Your task to perform on an android device: Go to eBay Image 0: 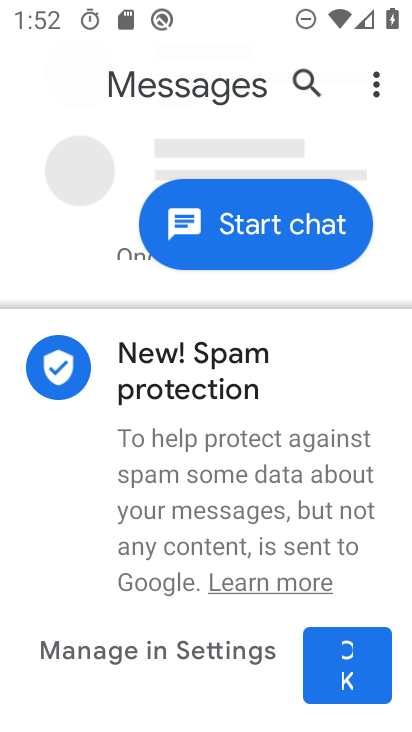
Step 0: press home button
Your task to perform on an android device: Go to eBay Image 1: 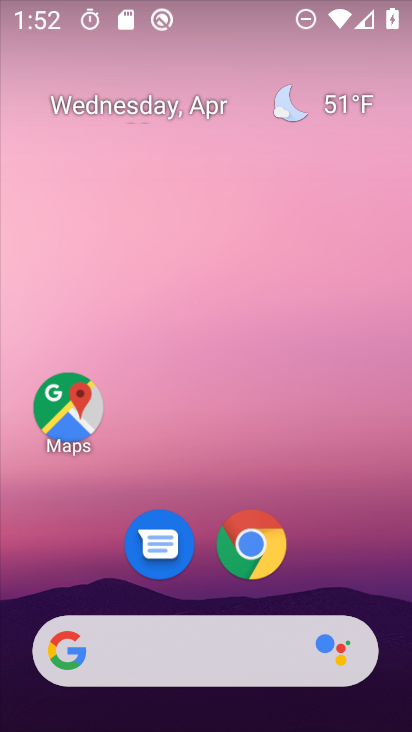
Step 1: drag from (321, 547) to (318, 81)
Your task to perform on an android device: Go to eBay Image 2: 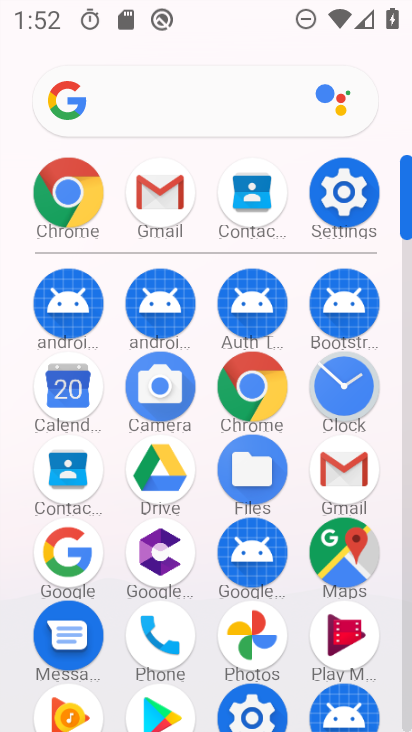
Step 2: click (241, 374)
Your task to perform on an android device: Go to eBay Image 3: 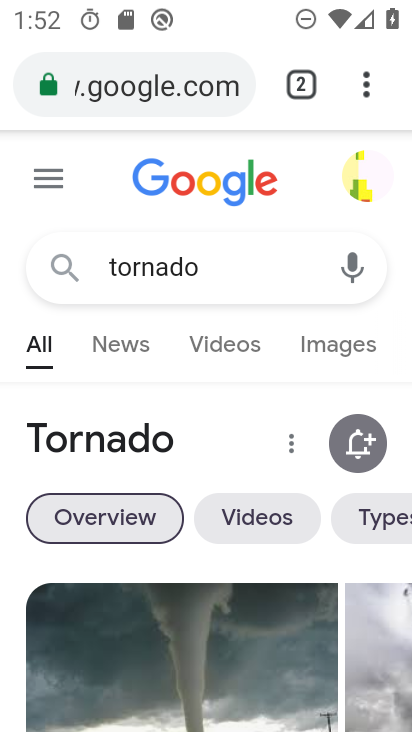
Step 3: press back button
Your task to perform on an android device: Go to eBay Image 4: 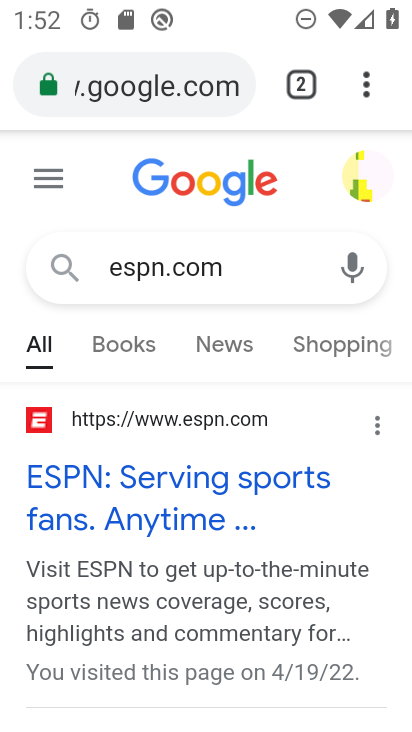
Step 4: press back button
Your task to perform on an android device: Go to eBay Image 5: 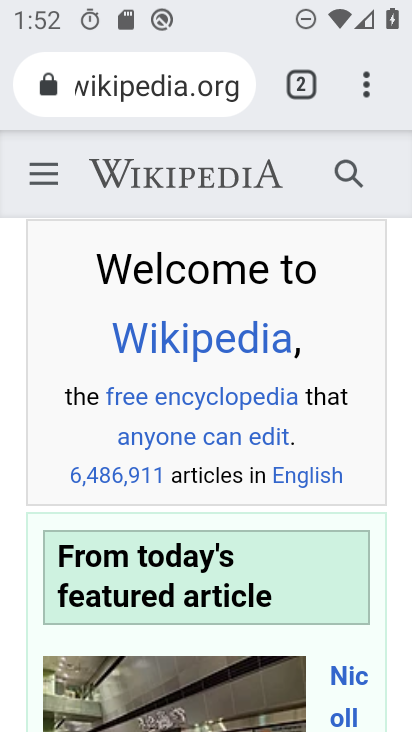
Step 5: press back button
Your task to perform on an android device: Go to eBay Image 6: 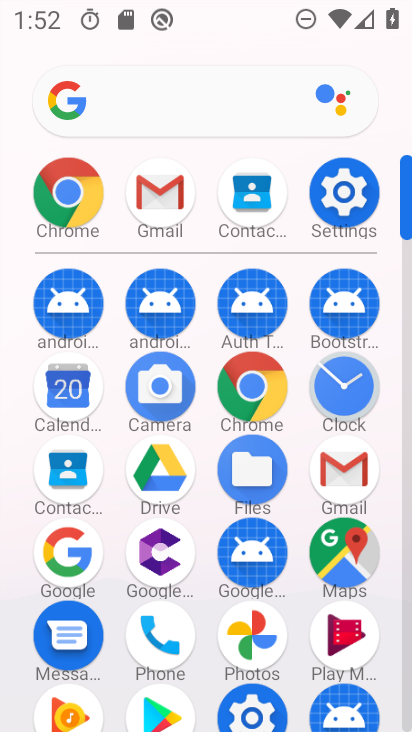
Step 6: click (244, 394)
Your task to perform on an android device: Go to eBay Image 7: 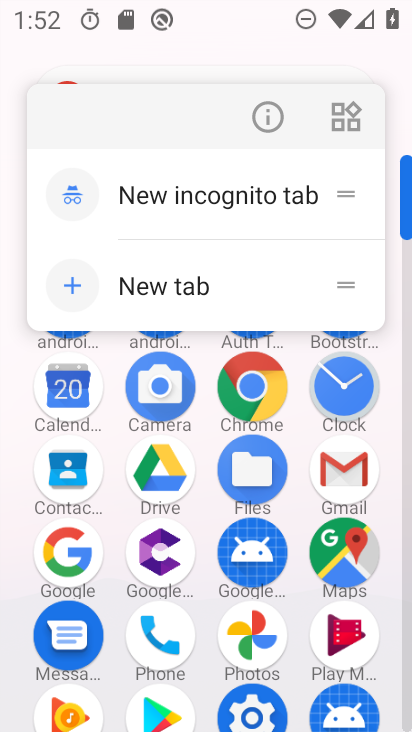
Step 7: click (251, 405)
Your task to perform on an android device: Go to eBay Image 8: 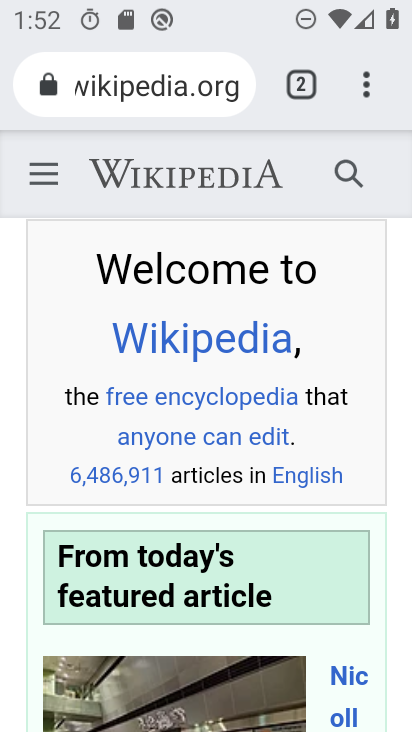
Step 8: click (205, 79)
Your task to perform on an android device: Go to eBay Image 9: 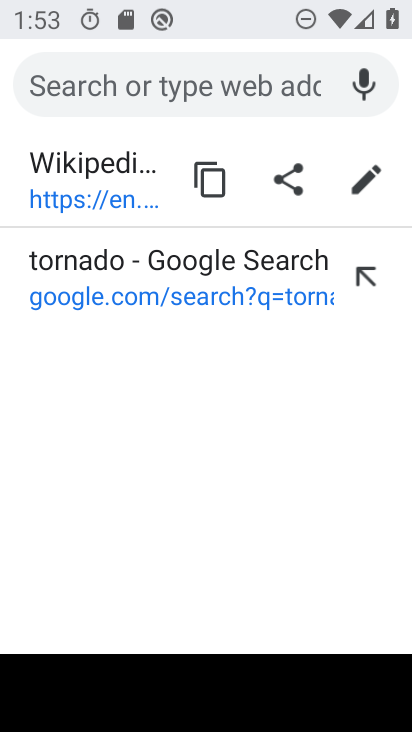
Step 9: type "ebay"
Your task to perform on an android device: Go to eBay Image 10: 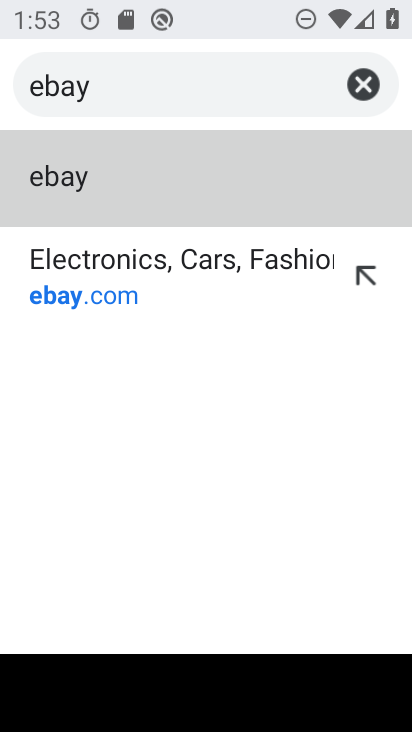
Step 10: click (96, 184)
Your task to perform on an android device: Go to eBay Image 11: 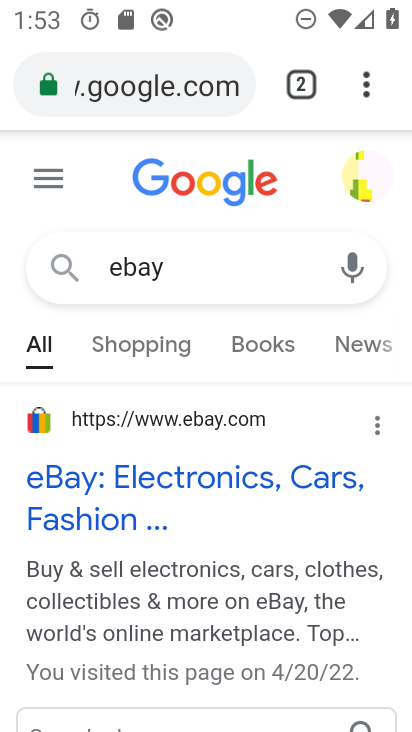
Step 11: task complete